Your task to perform on an android device: Open Yahoo.com Image 0: 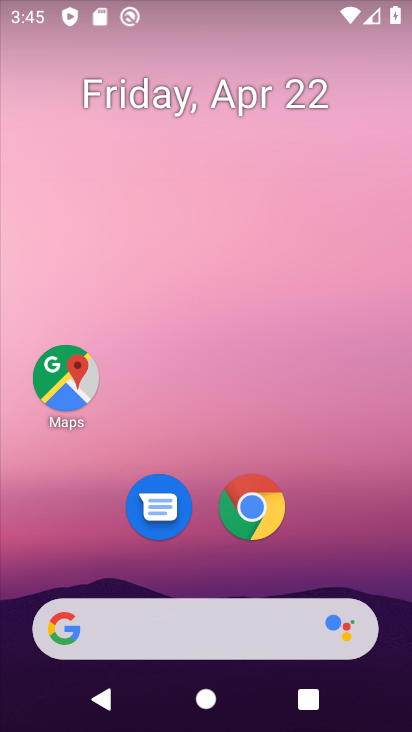
Step 0: click (226, 632)
Your task to perform on an android device: Open Yahoo.com Image 1: 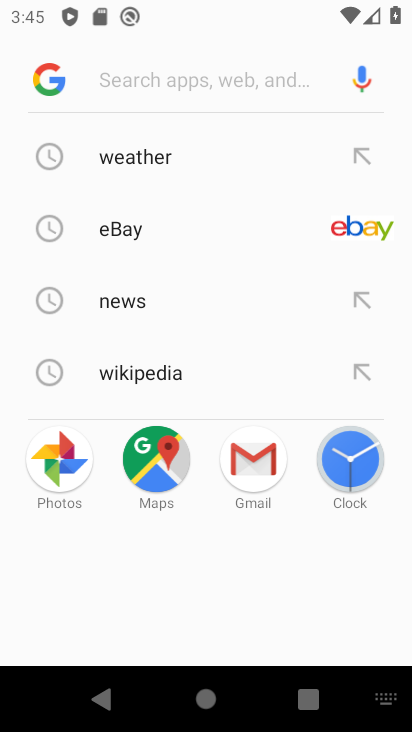
Step 1: type "yahoo.com"
Your task to perform on an android device: Open Yahoo.com Image 2: 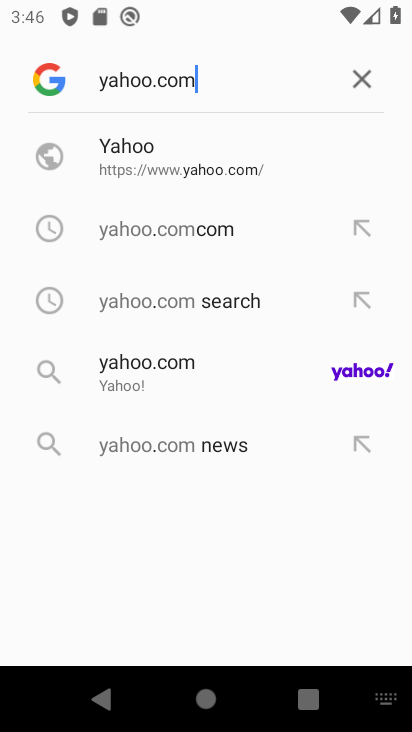
Step 2: click (204, 365)
Your task to perform on an android device: Open Yahoo.com Image 3: 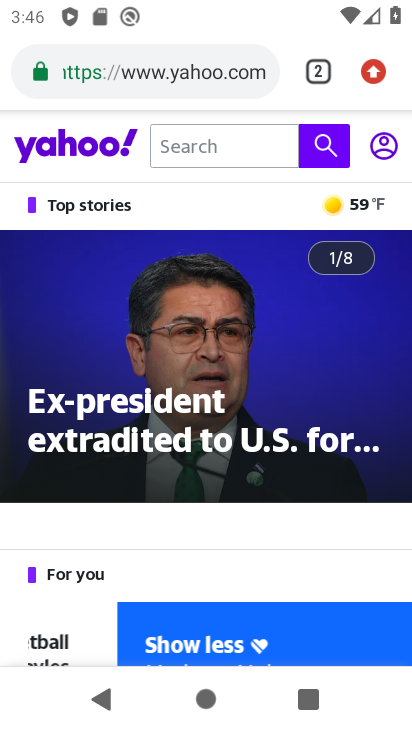
Step 3: task complete